Your task to perform on an android device: Go to CNN.com Image 0: 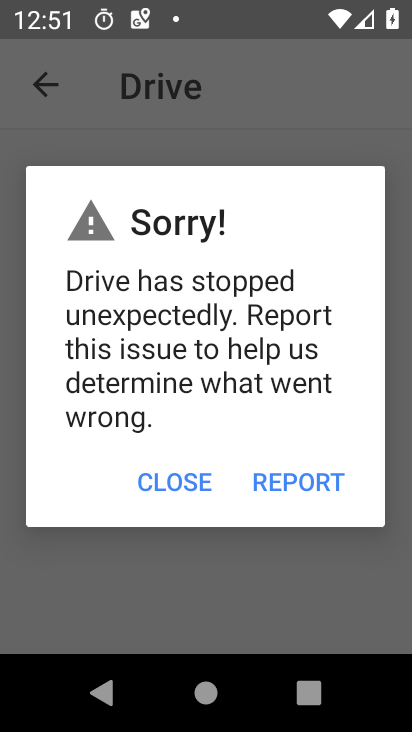
Step 0: press home button
Your task to perform on an android device: Go to CNN.com Image 1: 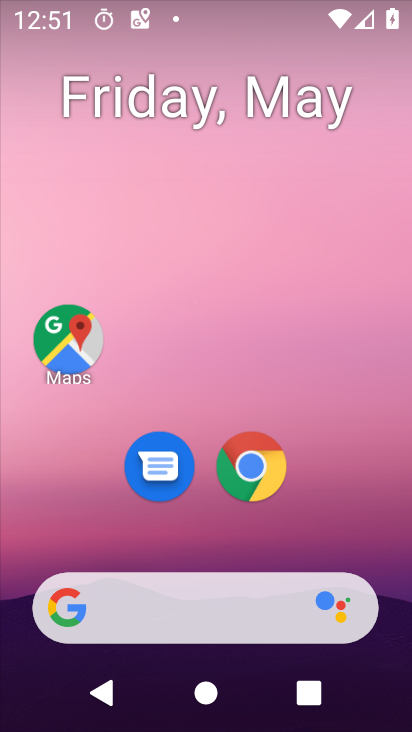
Step 1: drag from (384, 604) to (343, 162)
Your task to perform on an android device: Go to CNN.com Image 2: 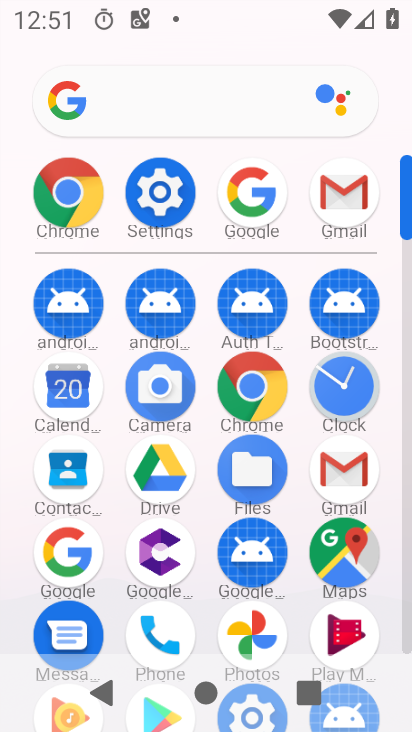
Step 2: click (246, 215)
Your task to perform on an android device: Go to CNN.com Image 3: 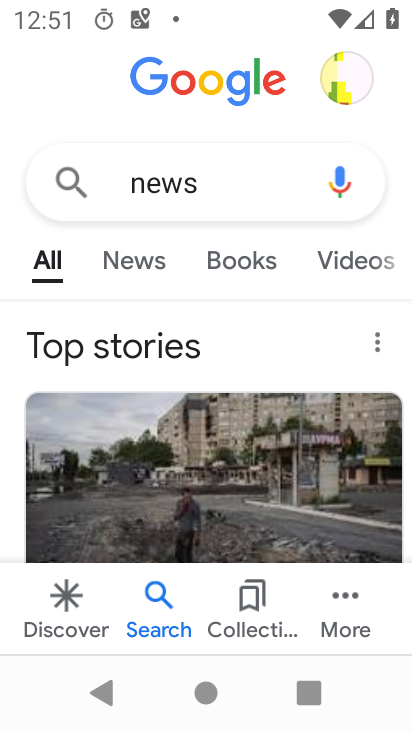
Step 3: press back button
Your task to perform on an android device: Go to CNN.com Image 4: 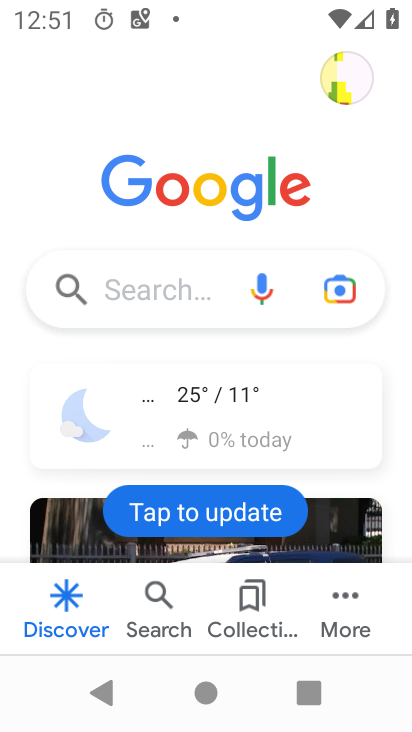
Step 4: click (137, 285)
Your task to perform on an android device: Go to CNN.com Image 5: 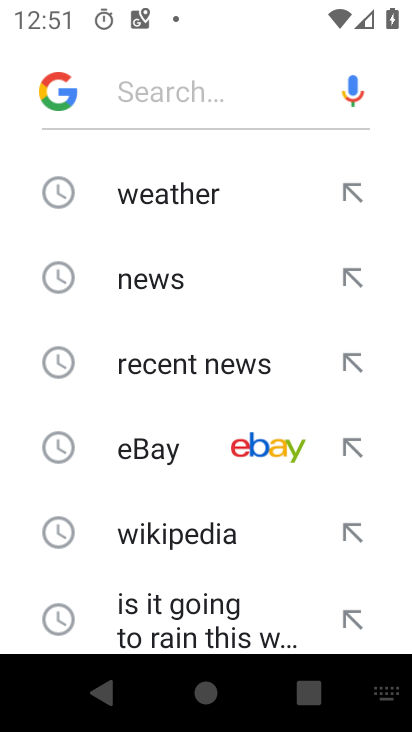
Step 5: drag from (166, 629) to (201, 197)
Your task to perform on an android device: Go to CNN.com Image 6: 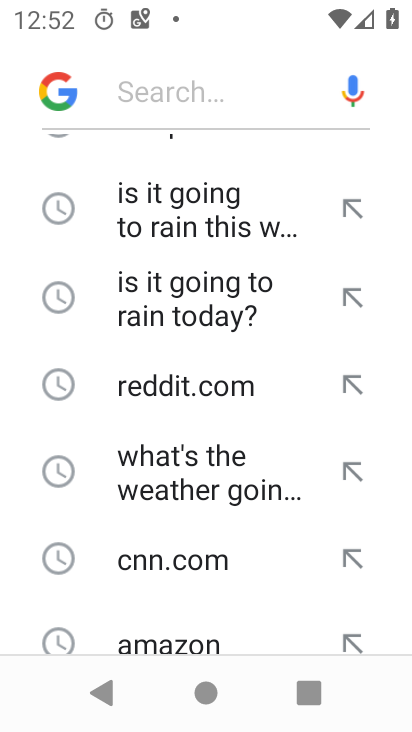
Step 6: click (182, 566)
Your task to perform on an android device: Go to CNN.com Image 7: 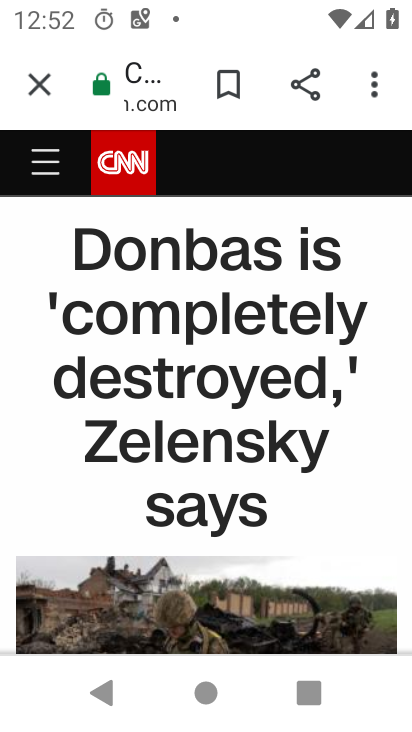
Step 7: task complete